Your task to perform on an android device: Open Chrome and go to settings Image 0: 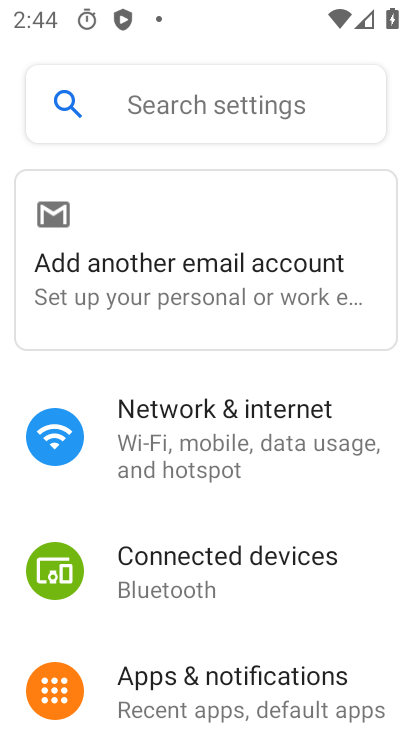
Step 0: press home button
Your task to perform on an android device: Open Chrome and go to settings Image 1: 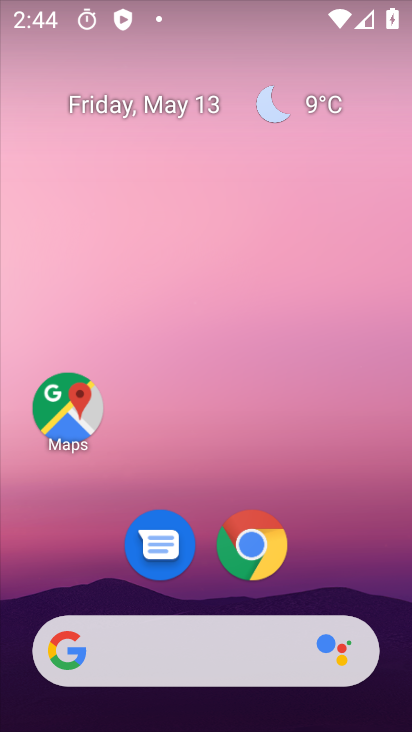
Step 1: click (267, 546)
Your task to perform on an android device: Open Chrome and go to settings Image 2: 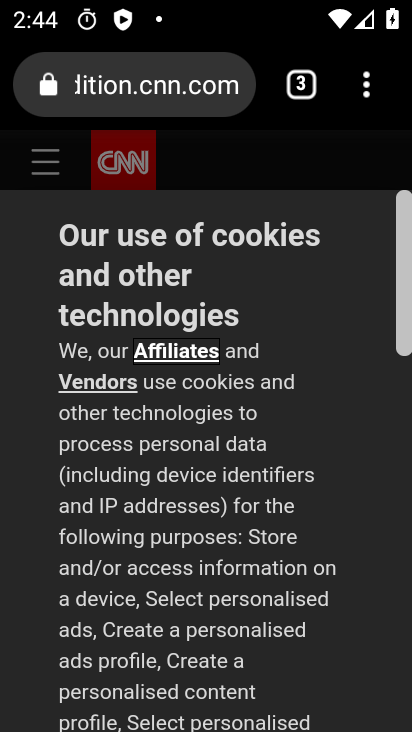
Step 2: task complete